Your task to perform on an android device: check storage Image 0: 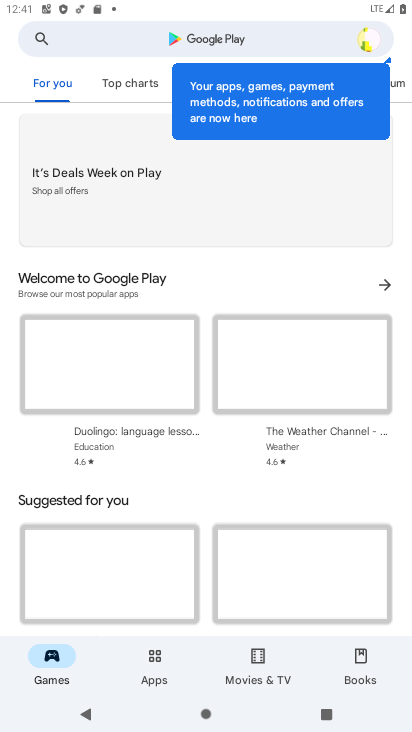
Step 0: press home button
Your task to perform on an android device: check storage Image 1: 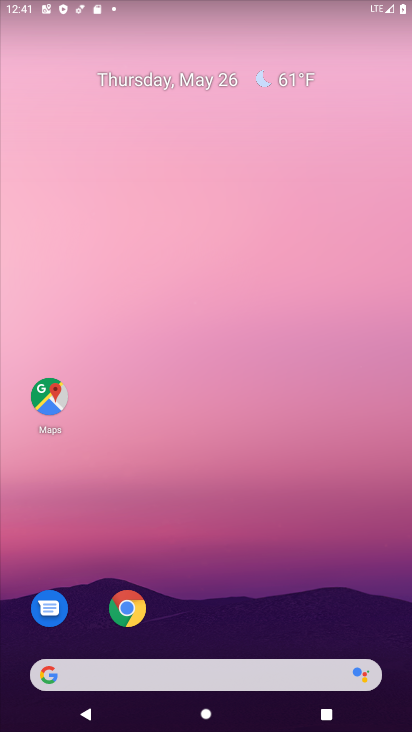
Step 1: drag from (365, 622) to (280, 167)
Your task to perform on an android device: check storage Image 2: 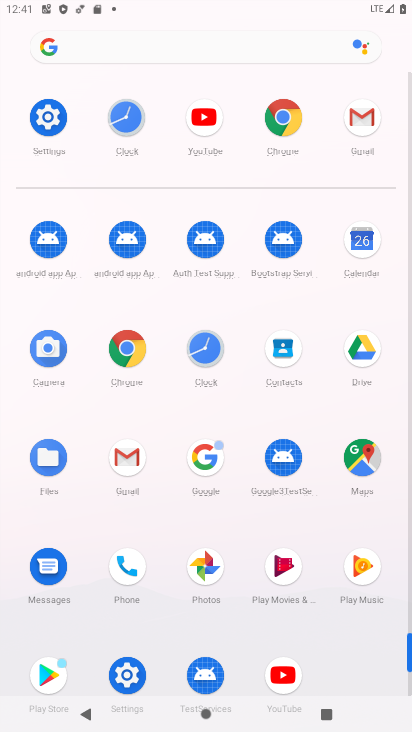
Step 2: click (128, 672)
Your task to perform on an android device: check storage Image 3: 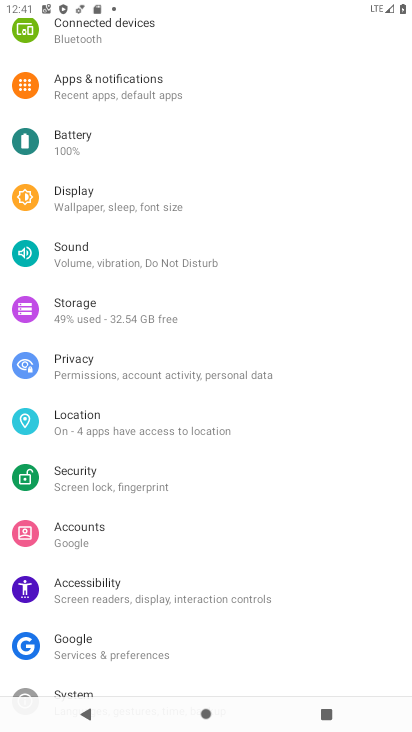
Step 3: click (88, 307)
Your task to perform on an android device: check storage Image 4: 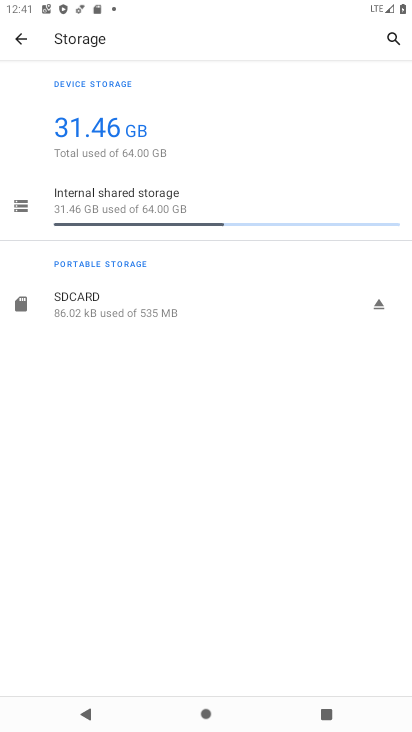
Step 4: task complete